Your task to perform on an android device: Open Google Maps and go to "Timeline" Image 0: 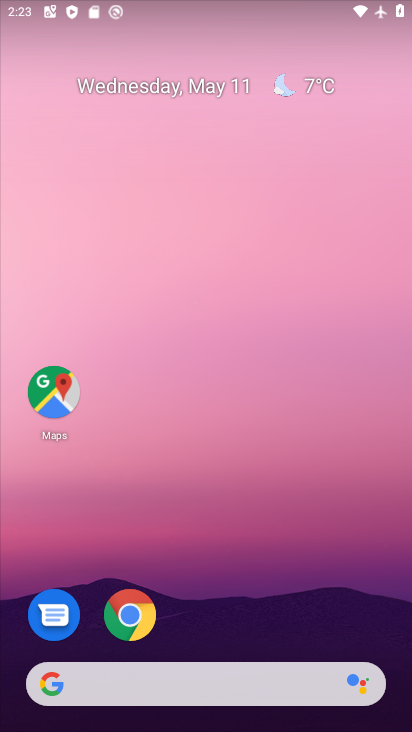
Step 0: click (53, 399)
Your task to perform on an android device: Open Google Maps and go to "Timeline" Image 1: 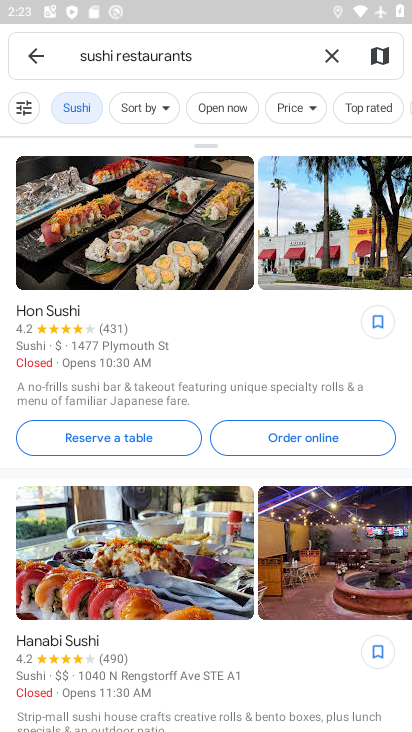
Step 1: click (34, 53)
Your task to perform on an android device: Open Google Maps and go to "Timeline" Image 2: 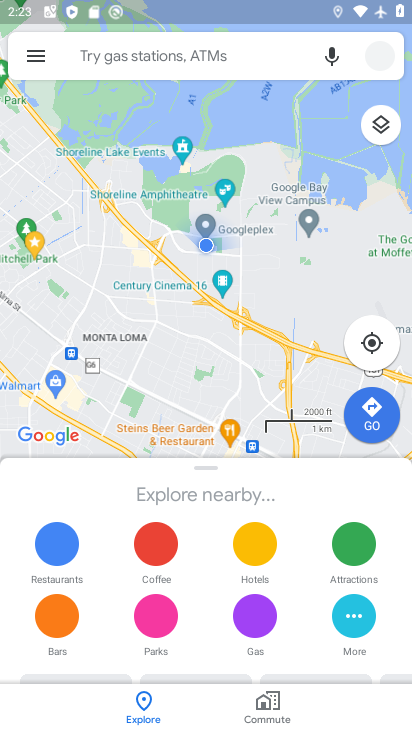
Step 2: click (34, 53)
Your task to perform on an android device: Open Google Maps and go to "Timeline" Image 3: 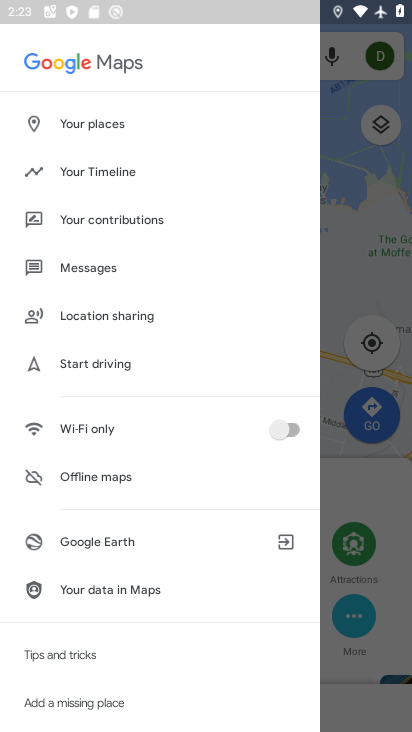
Step 3: click (101, 181)
Your task to perform on an android device: Open Google Maps and go to "Timeline" Image 4: 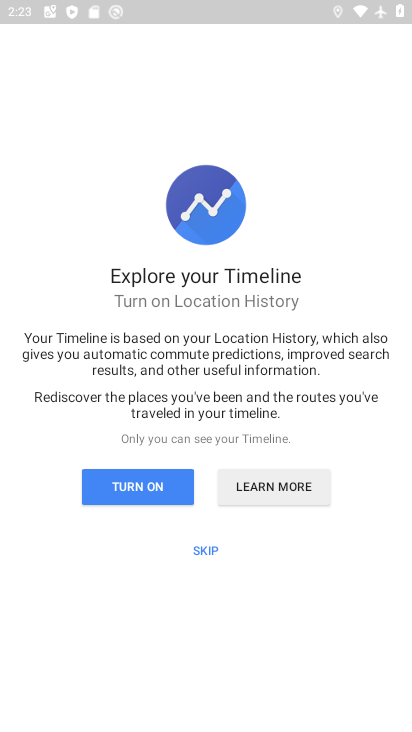
Step 4: click (161, 489)
Your task to perform on an android device: Open Google Maps and go to "Timeline" Image 5: 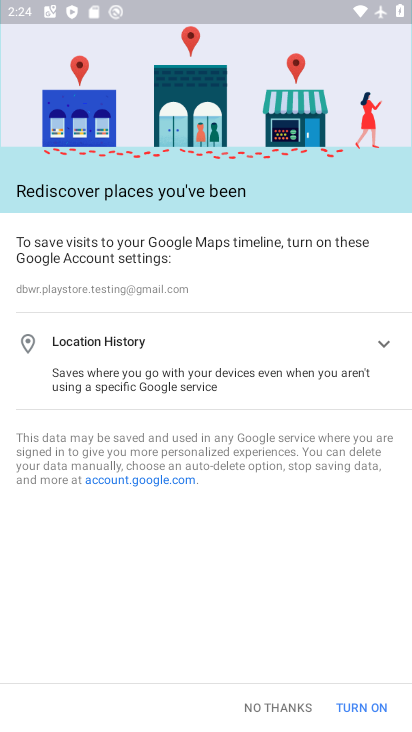
Step 5: click (280, 702)
Your task to perform on an android device: Open Google Maps and go to "Timeline" Image 6: 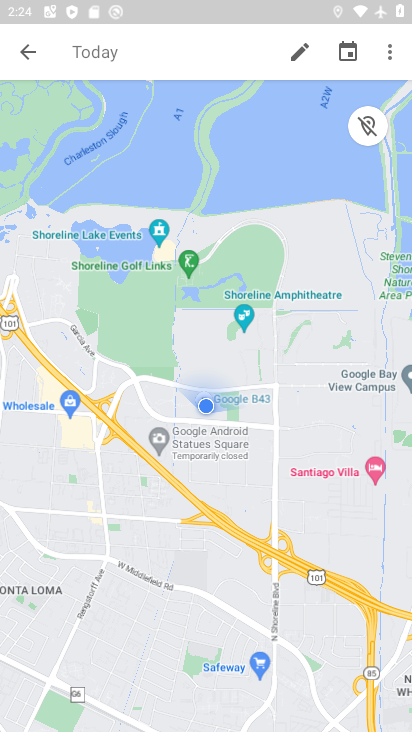
Step 6: task complete